Your task to perform on an android device: turn off translation in the chrome app Image 0: 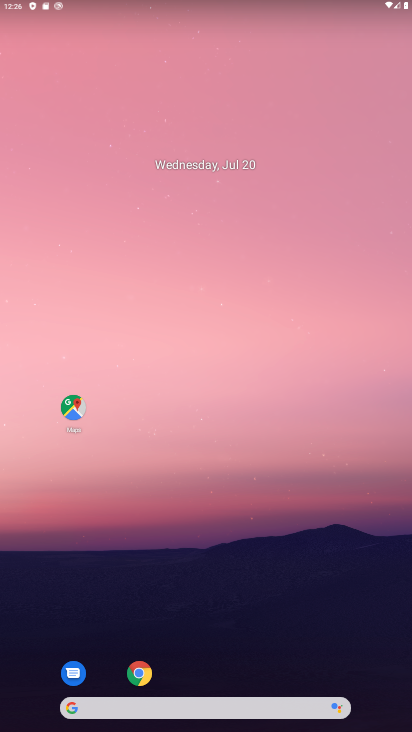
Step 0: click (144, 675)
Your task to perform on an android device: turn off translation in the chrome app Image 1: 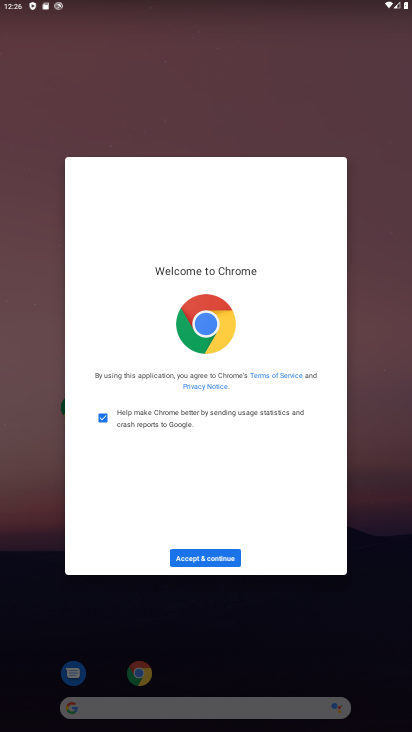
Step 1: click (205, 552)
Your task to perform on an android device: turn off translation in the chrome app Image 2: 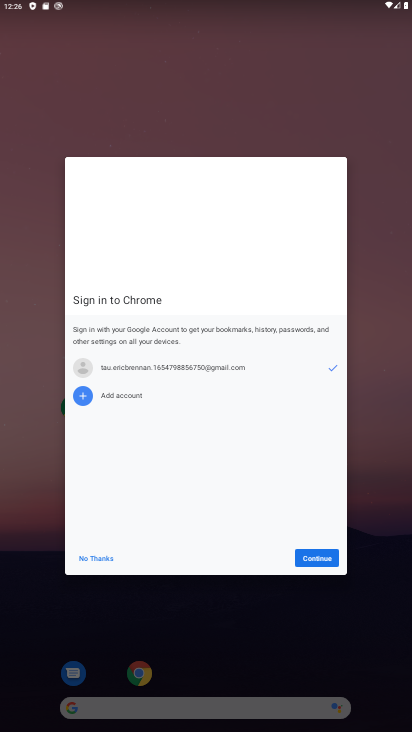
Step 2: click (312, 566)
Your task to perform on an android device: turn off translation in the chrome app Image 3: 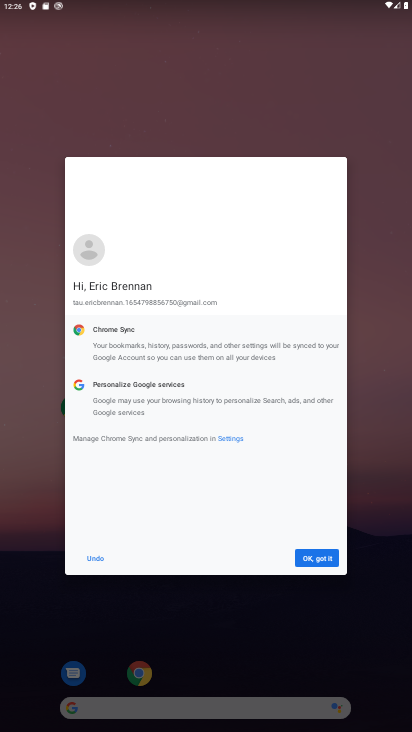
Step 3: click (316, 562)
Your task to perform on an android device: turn off translation in the chrome app Image 4: 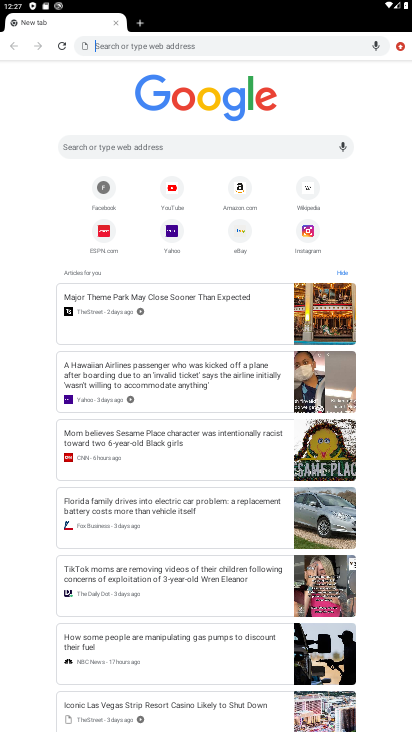
Step 4: click (403, 49)
Your task to perform on an android device: turn off translation in the chrome app Image 5: 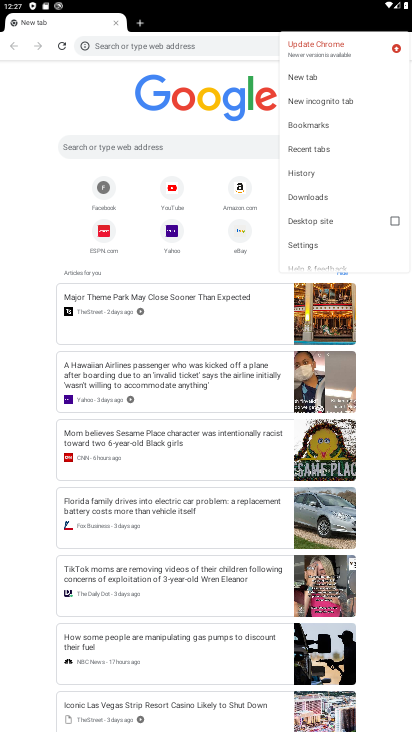
Step 5: drag from (323, 249) to (289, 107)
Your task to perform on an android device: turn off translation in the chrome app Image 6: 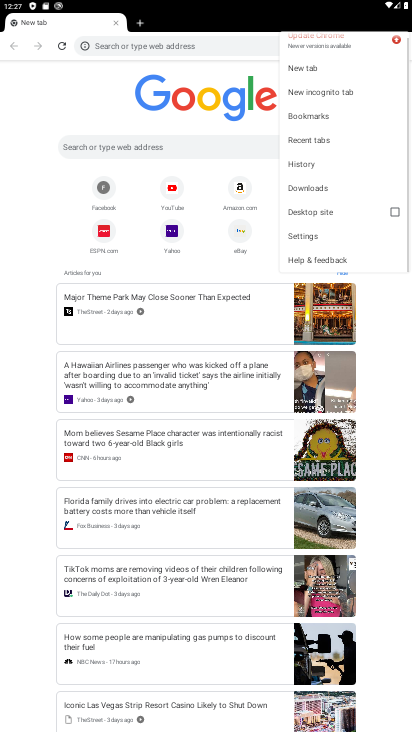
Step 6: click (310, 237)
Your task to perform on an android device: turn off translation in the chrome app Image 7: 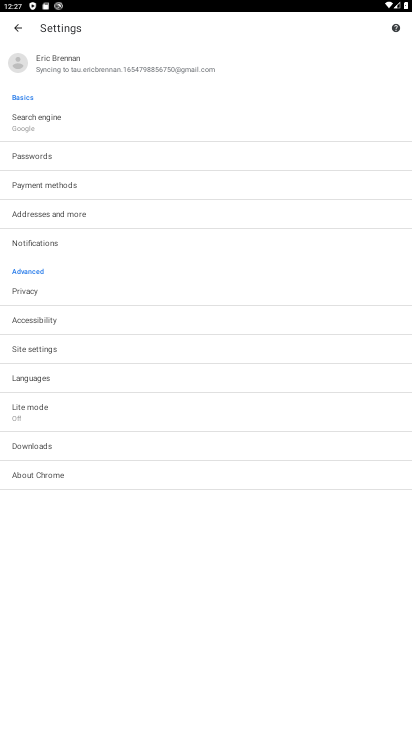
Step 7: click (124, 369)
Your task to perform on an android device: turn off translation in the chrome app Image 8: 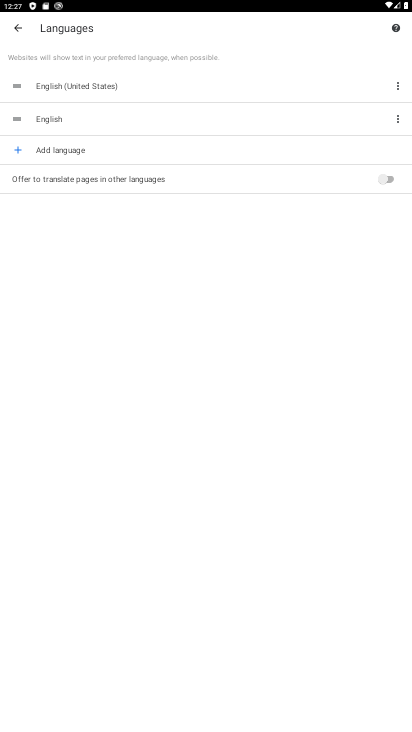
Step 8: task complete